Your task to perform on an android device: Empty the shopping cart on walmart. Add "asus rog" to the cart on walmart Image 0: 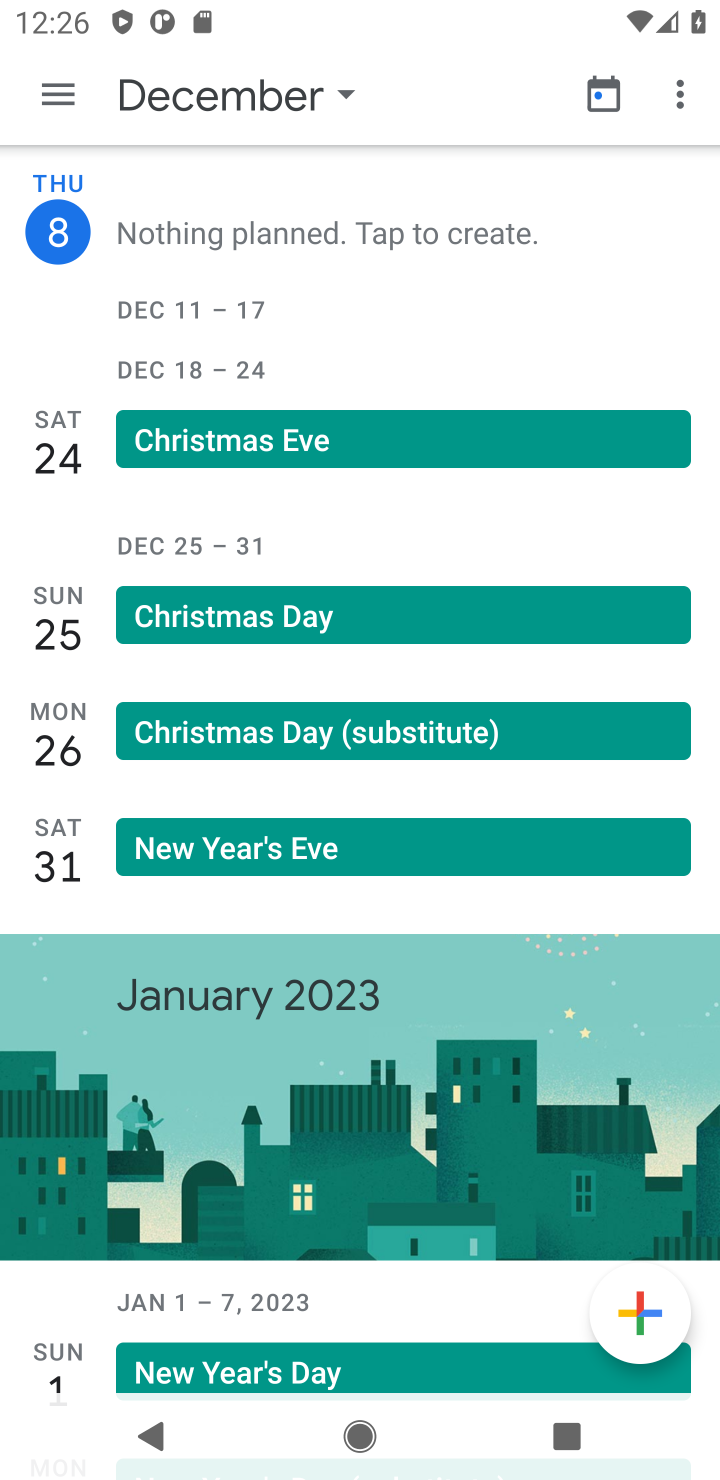
Step 0: press home button
Your task to perform on an android device: Empty the shopping cart on walmart. Add "asus rog" to the cart on walmart Image 1: 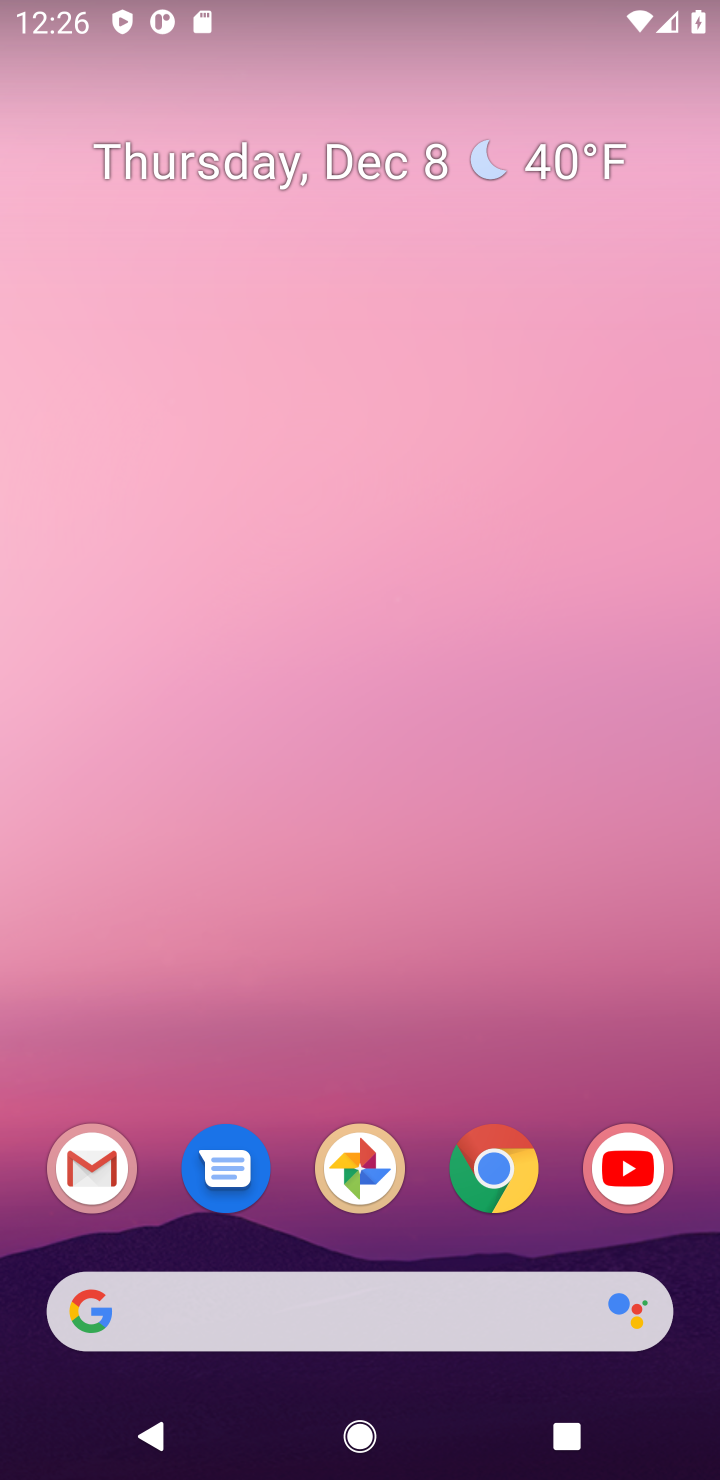
Step 1: drag from (308, 704) to (319, 247)
Your task to perform on an android device: Empty the shopping cart on walmart. Add "asus rog" to the cart on walmart Image 2: 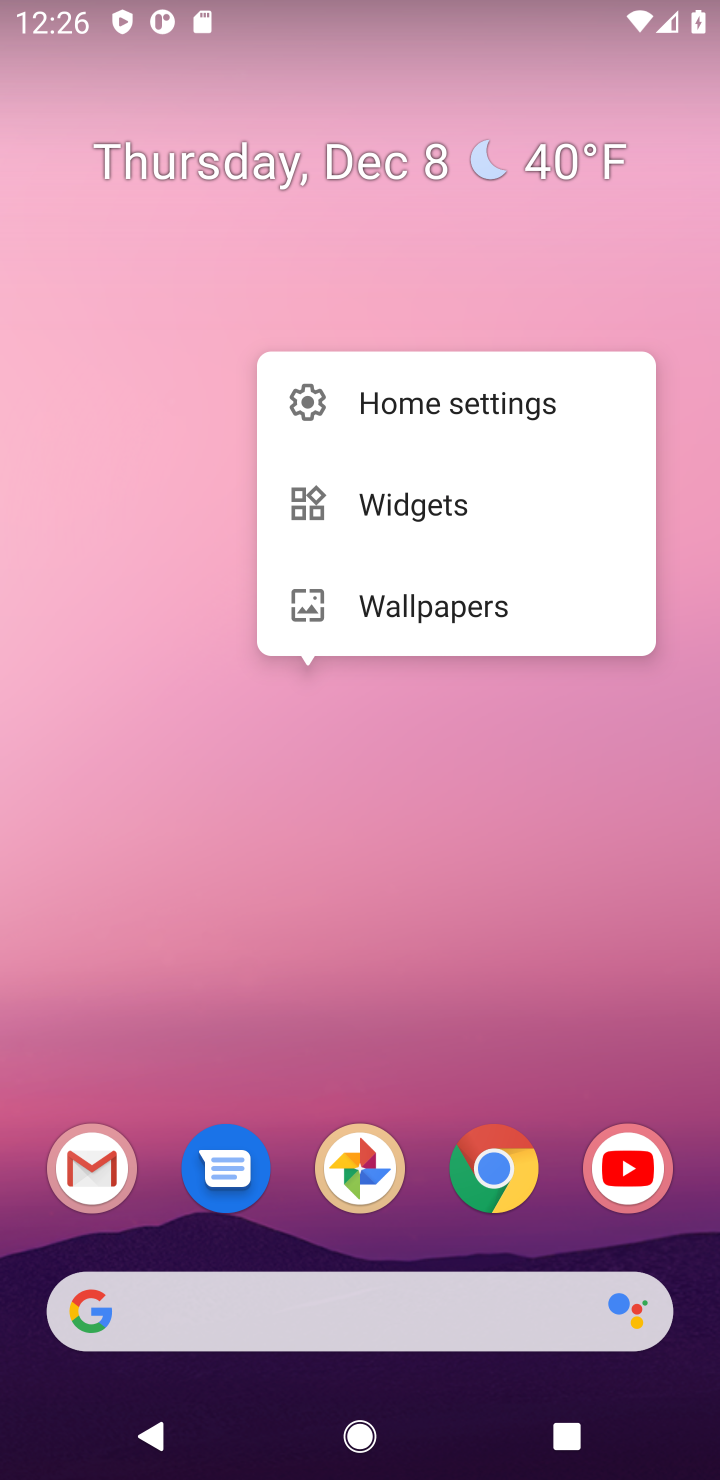
Step 2: click (63, 828)
Your task to perform on an android device: Empty the shopping cart on walmart. Add "asus rog" to the cart on walmart Image 3: 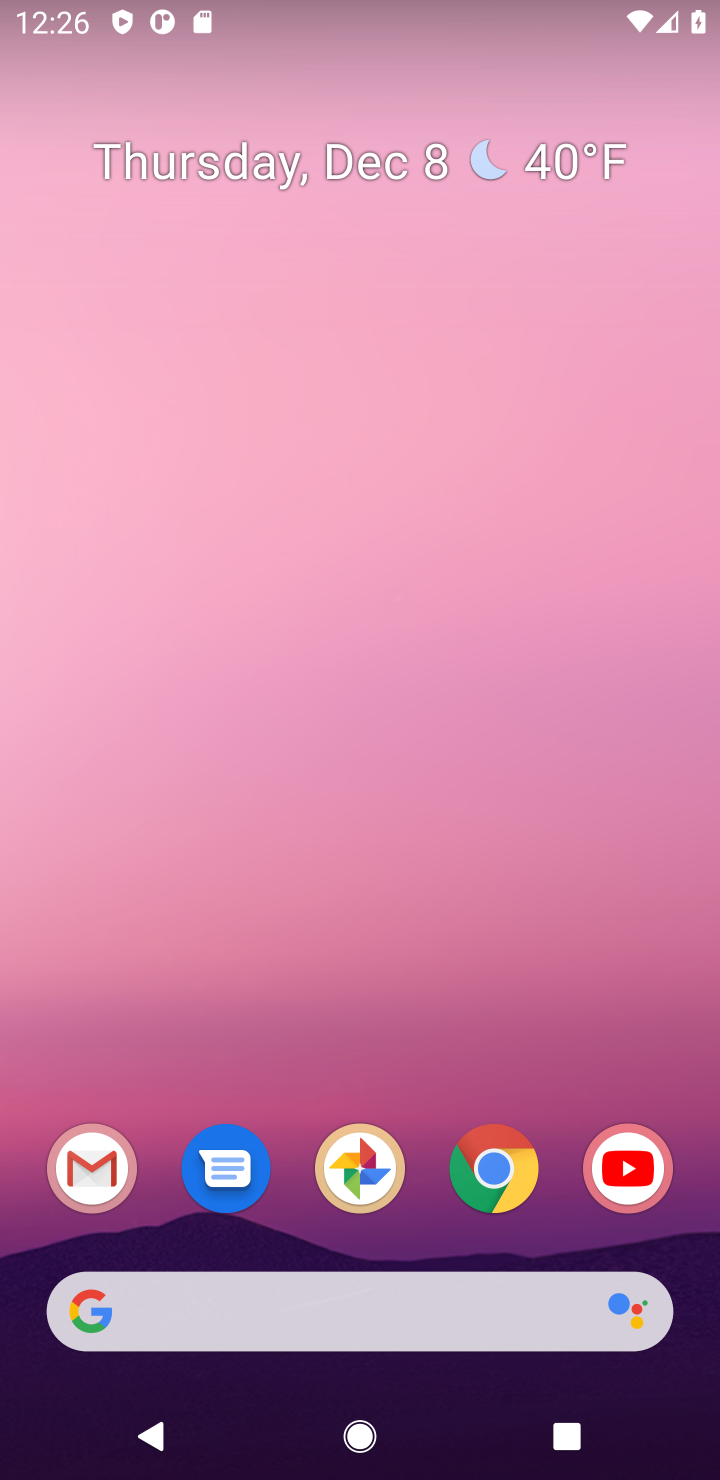
Step 3: drag from (333, 1239) to (386, 256)
Your task to perform on an android device: Empty the shopping cart on walmart. Add "asus rog" to the cart on walmart Image 4: 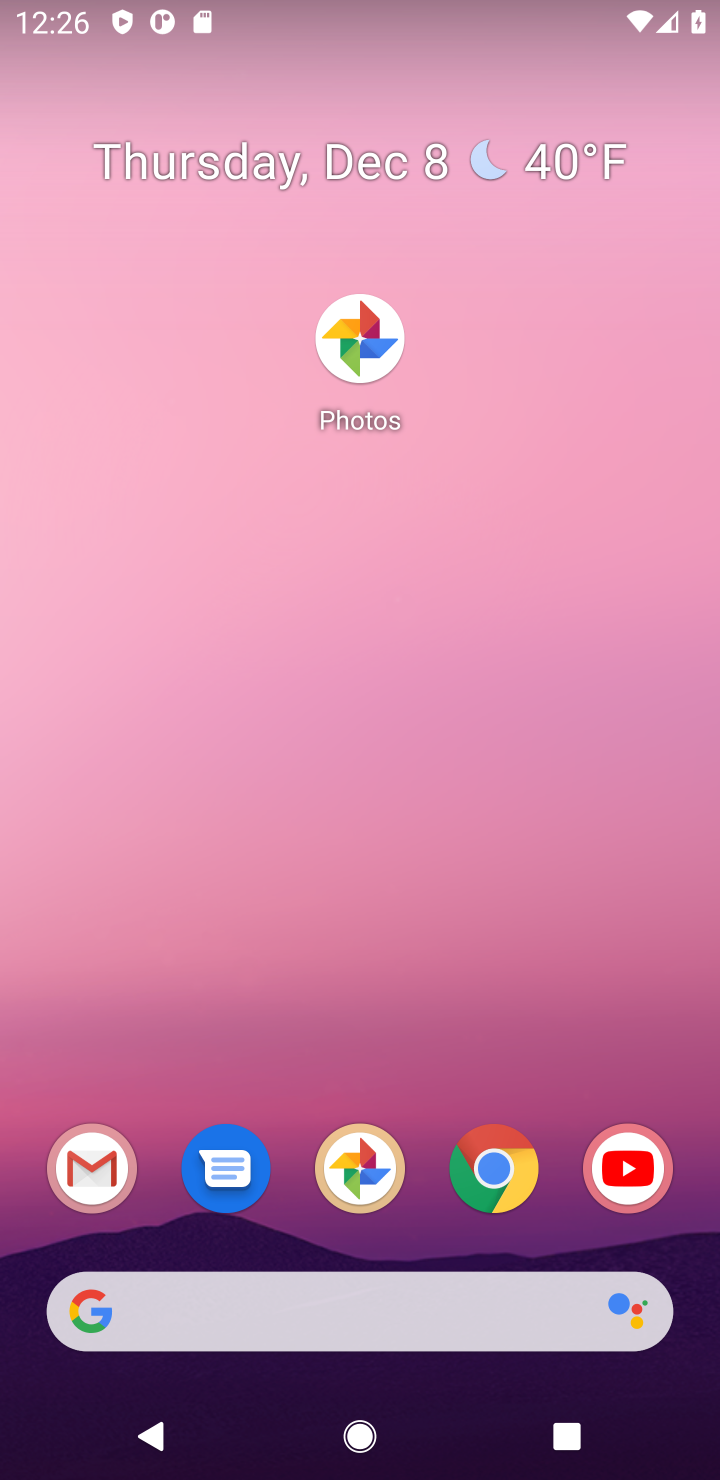
Step 4: drag from (414, 965) to (496, 297)
Your task to perform on an android device: Empty the shopping cart on walmart. Add "asus rog" to the cart on walmart Image 5: 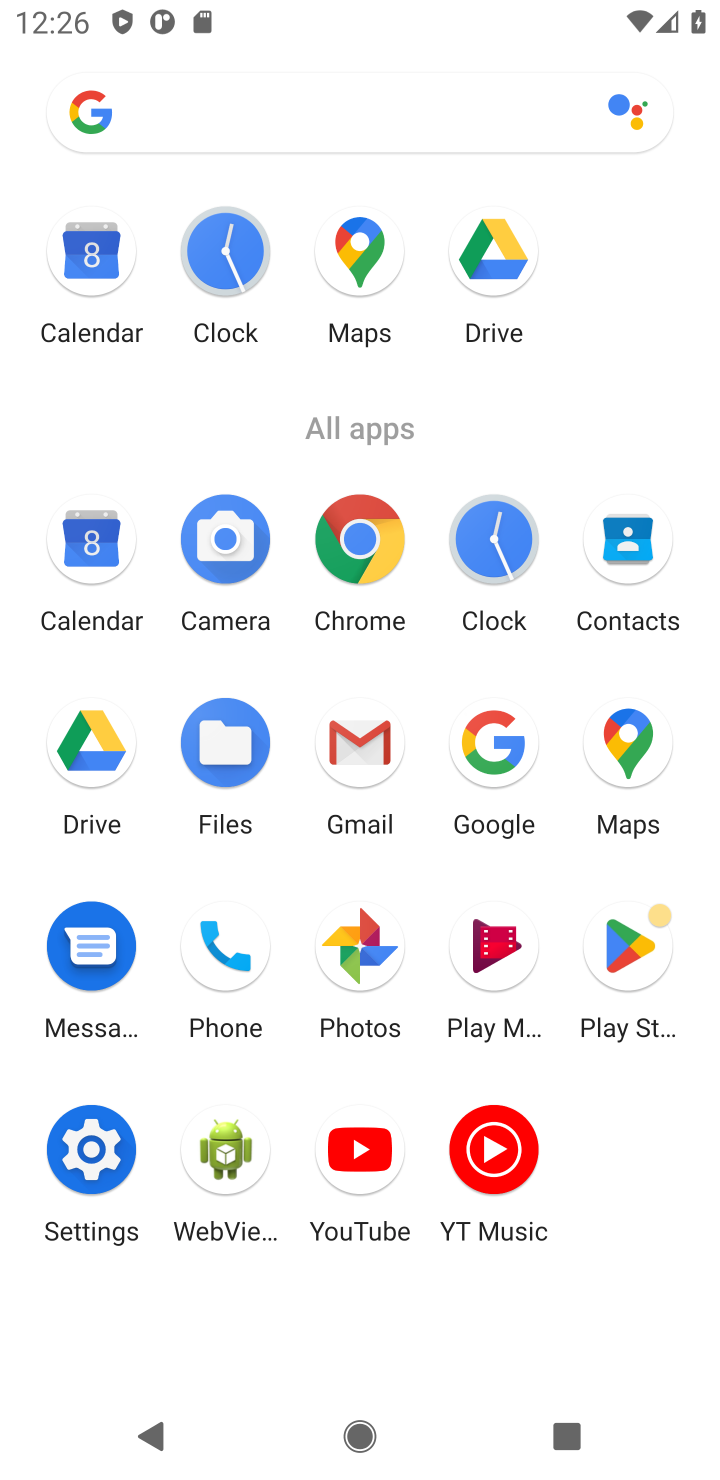
Step 5: click (489, 733)
Your task to perform on an android device: Empty the shopping cart on walmart. Add "asus rog" to the cart on walmart Image 6: 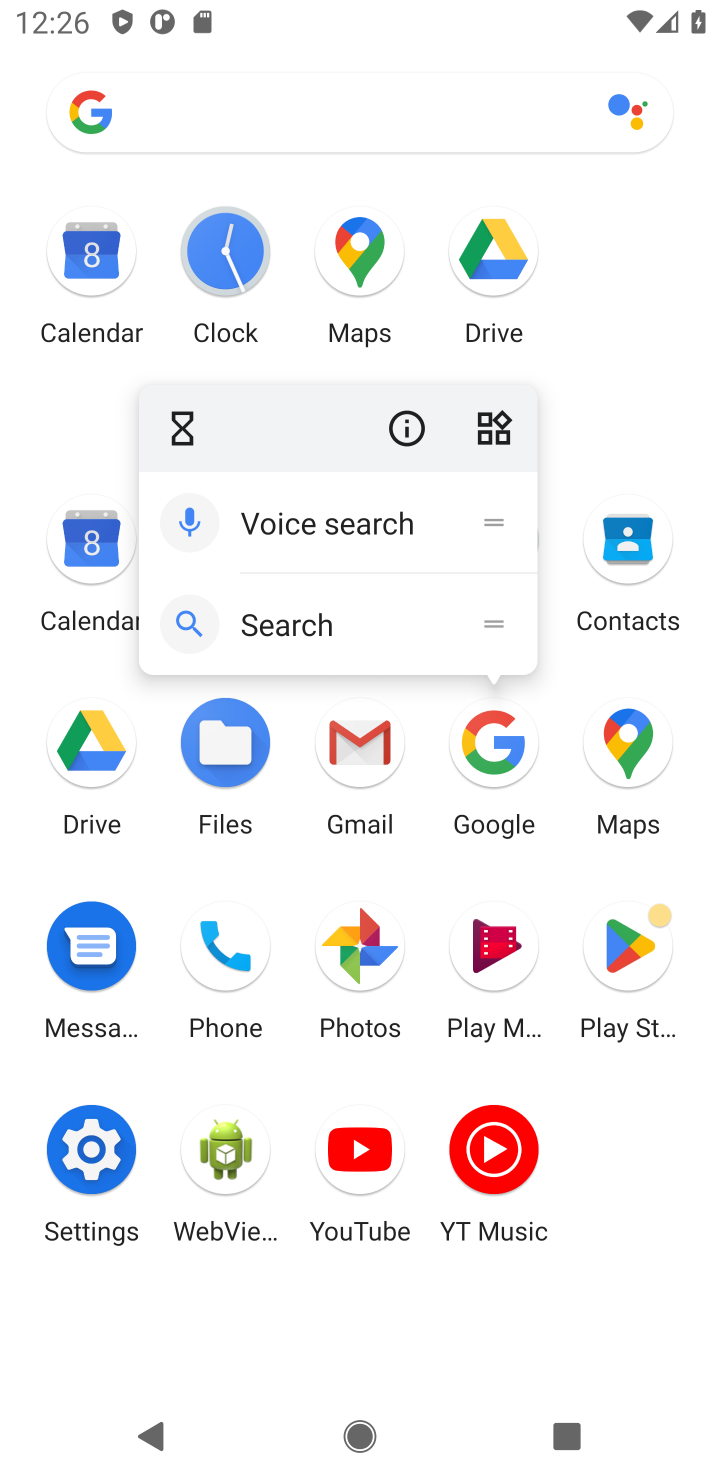
Step 6: click (482, 762)
Your task to perform on an android device: Empty the shopping cart on walmart. Add "asus rog" to the cart on walmart Image 7: 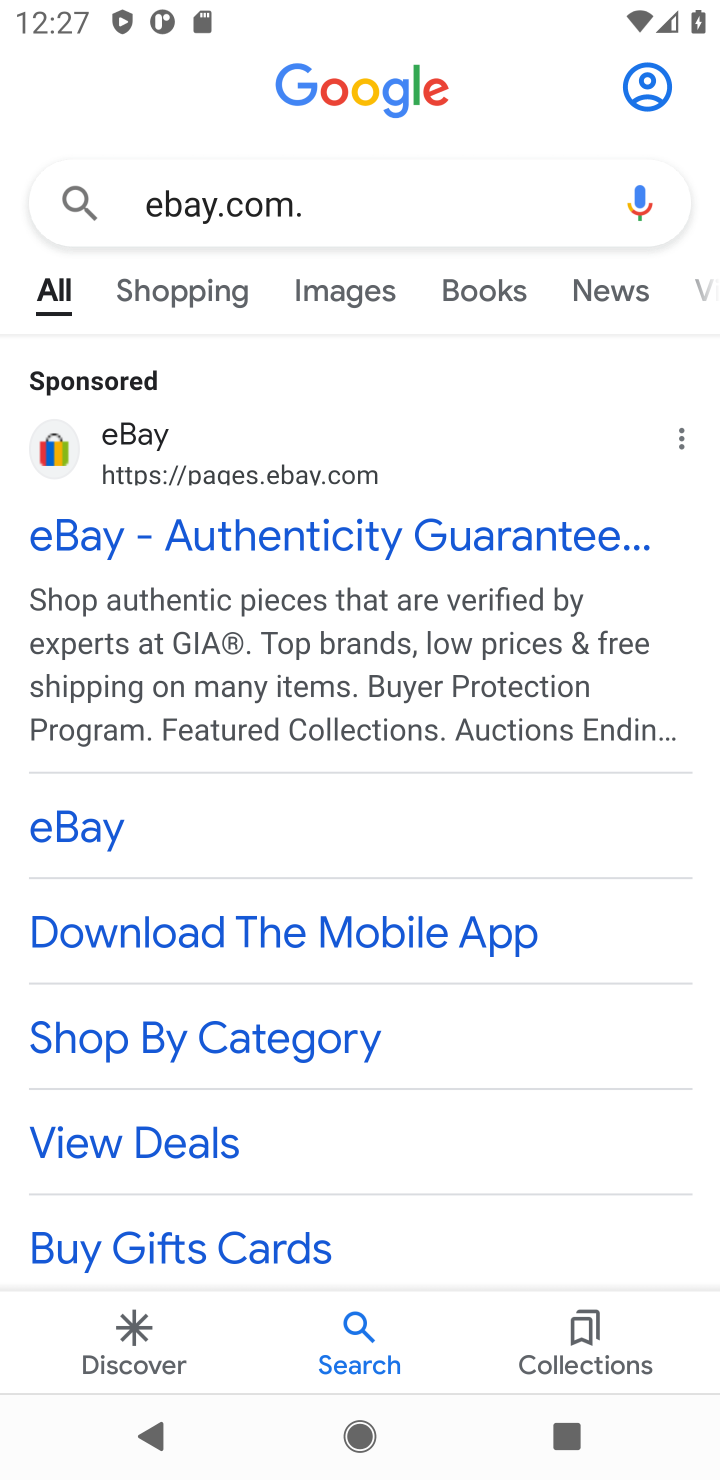
Step 7: click (243, 208)
Your task to perform on an android device: Empty the shopping cart on walmart. Add "asus rog" to the cart on walmart Image 8: 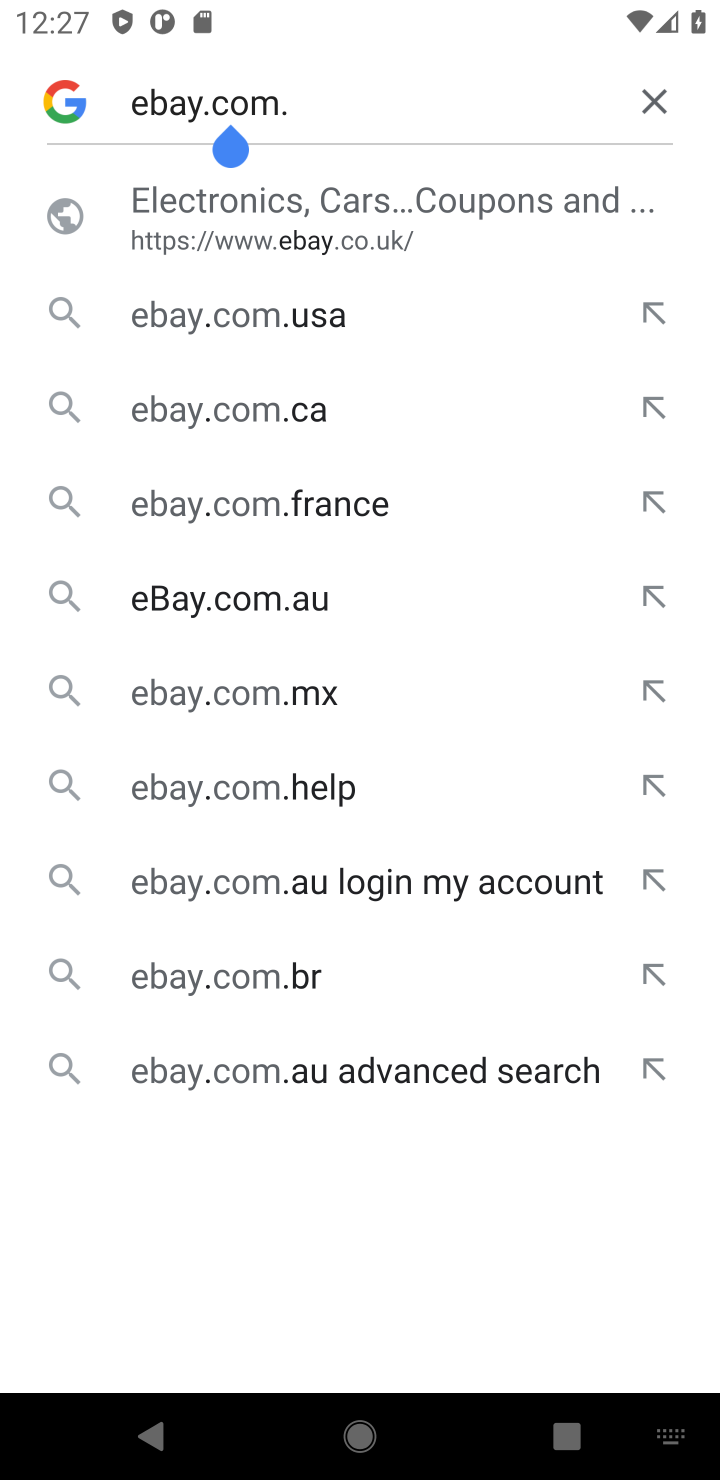
Step 8: click (655, 97)
Your task to perform on an android device: Empty the shopping cart on walmart. Add "asus rog" to the cart on walmart Image 9: 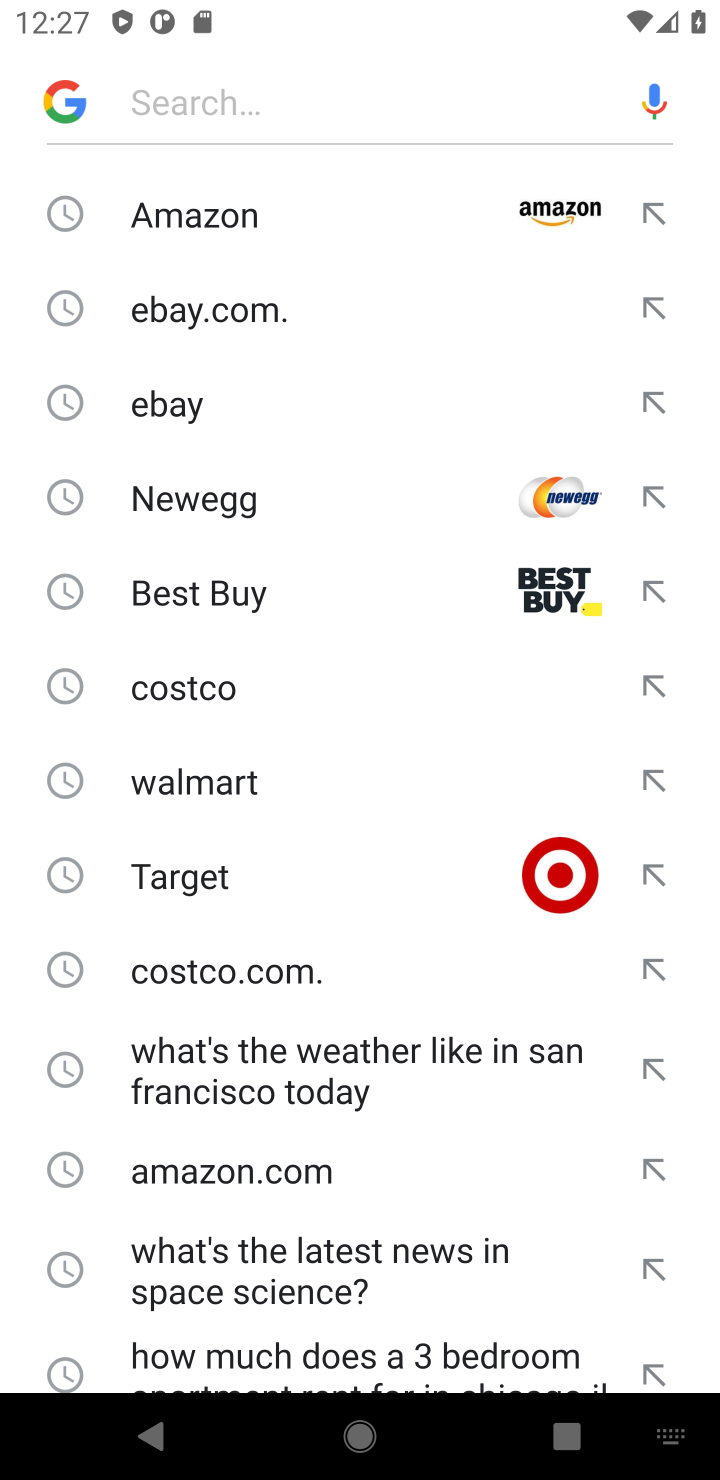
Step 9: type "walmart"
Your task to perform on an android device: Empty the shopping cart on walmart. Add "asus rog" to the cart on walmart Image 10: 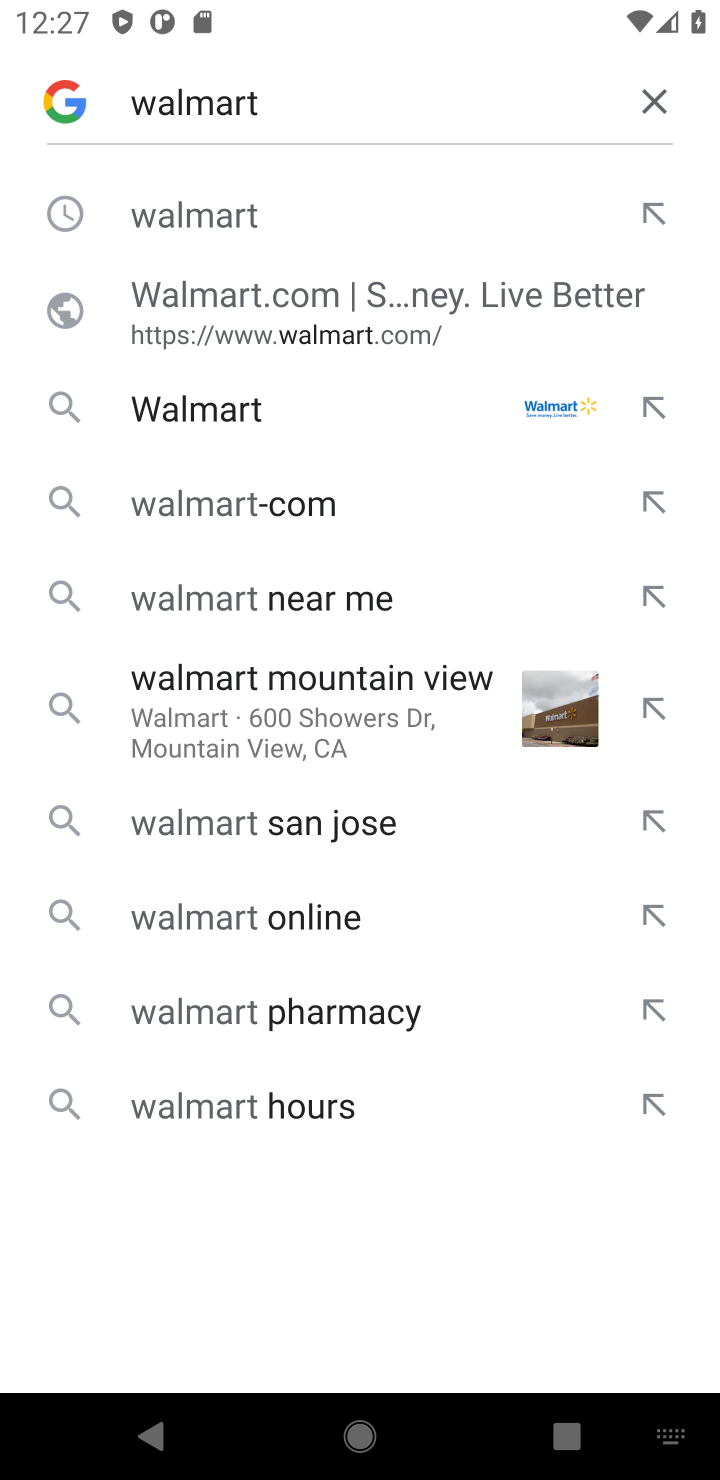
Step 10: click (213, 215)
Your task to perform on an android device: Empty the shopping cart on walmart. Add "asus rog" to the cart on walmart Image 11: 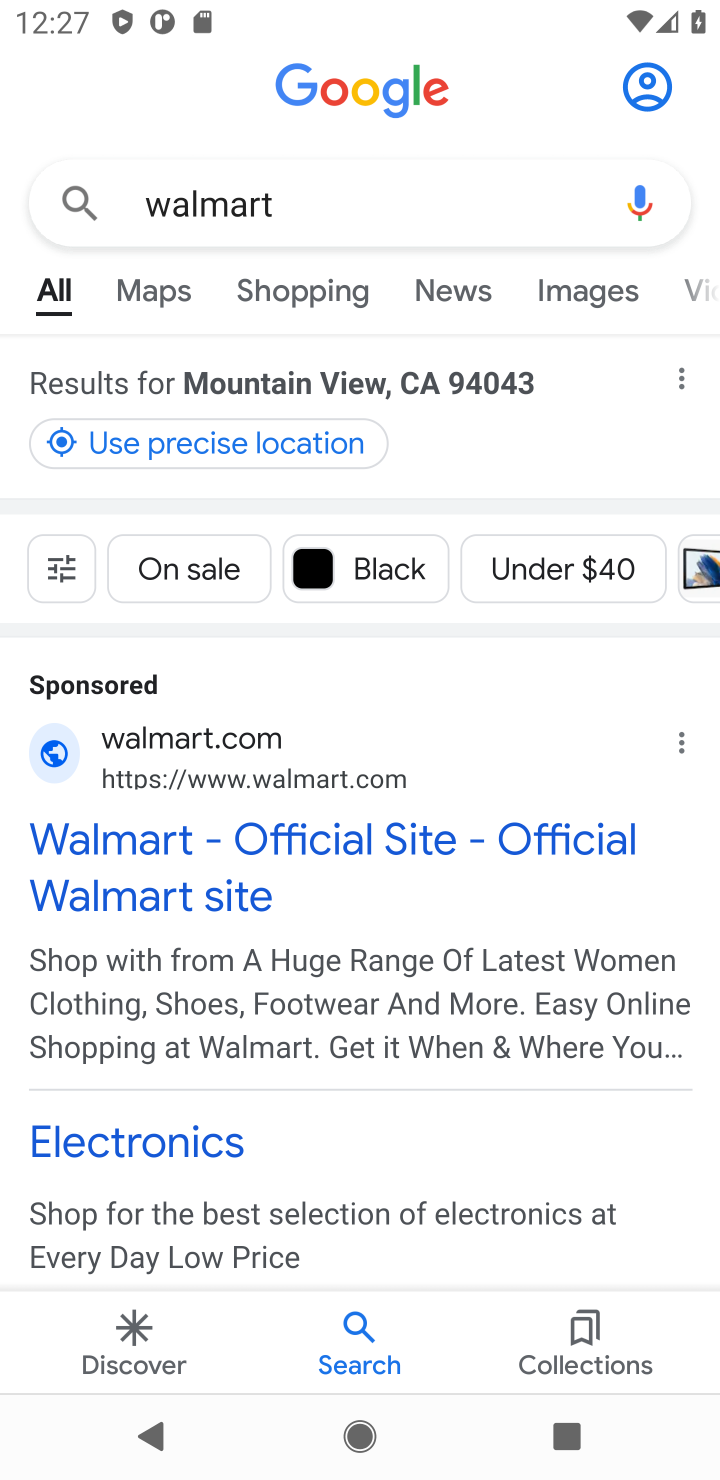
Step 11: click (309, 849)
Your task to perform on an android device: Empty the shopping cart on walmart. Add "asus rog" to the cart on walmart Image 12: 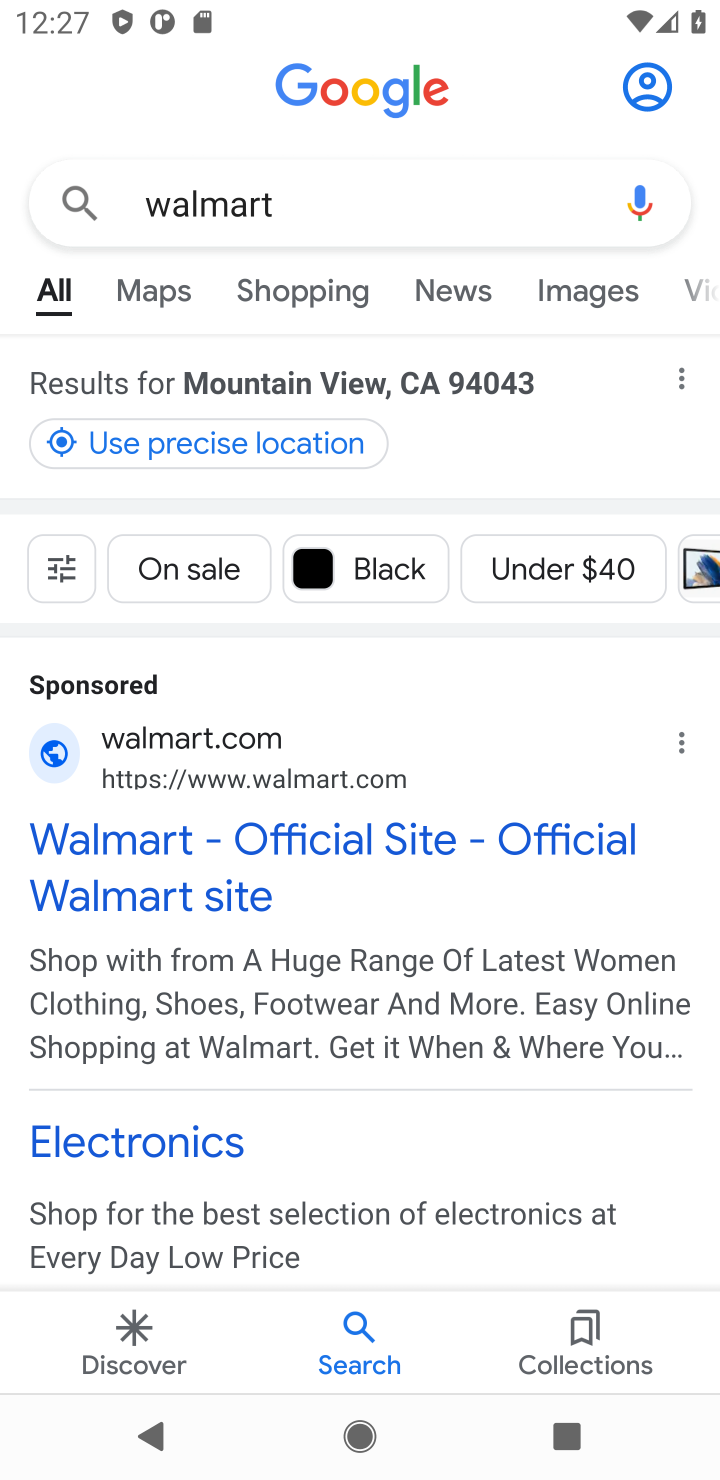
Step 12: click (182, 864)
Your task to perform on an android device: Empty the shopping cart on walmart. Add "asus rog" to the cart on walmart Image 13: 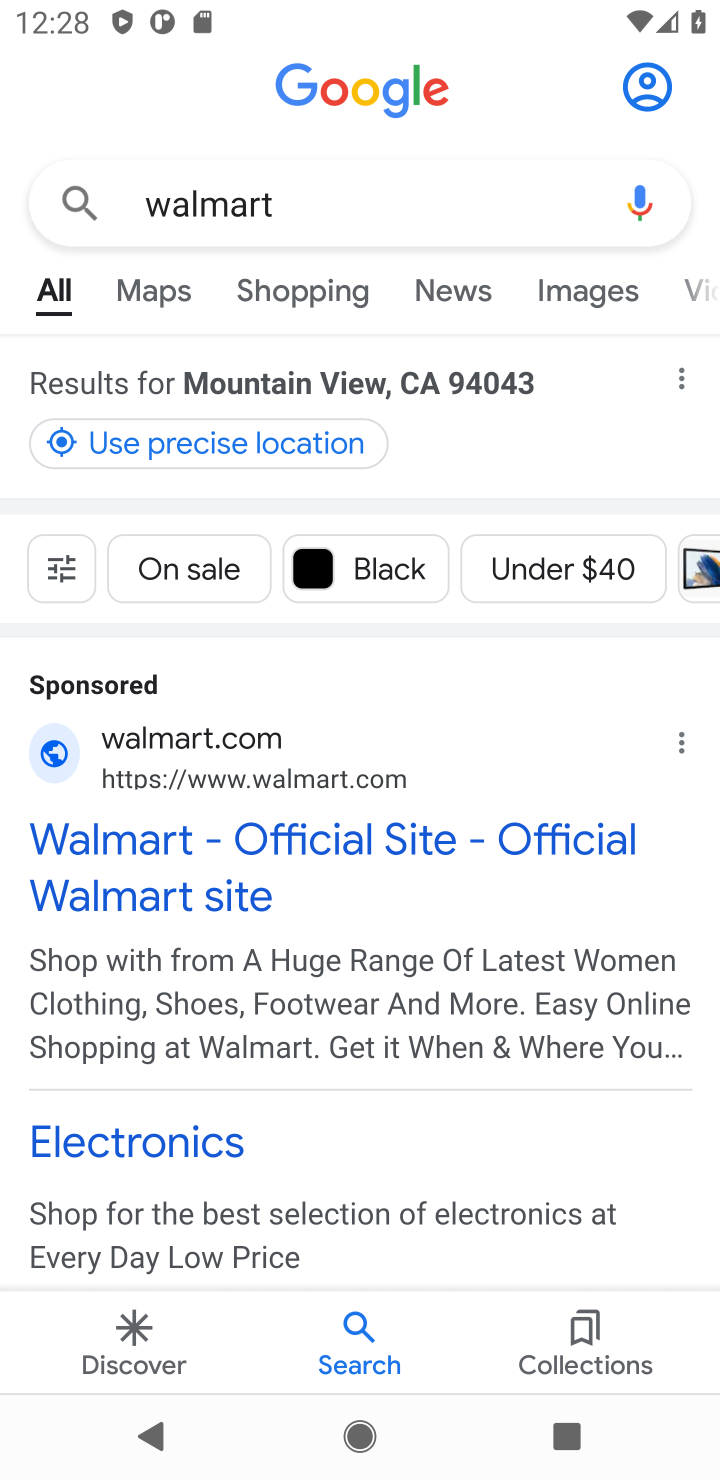
Step 13: click (207, 888)
Your task to perform on an android device: Empty the shopping cart on walmart. Add "asus rog" to the cart on walmart Image 14: 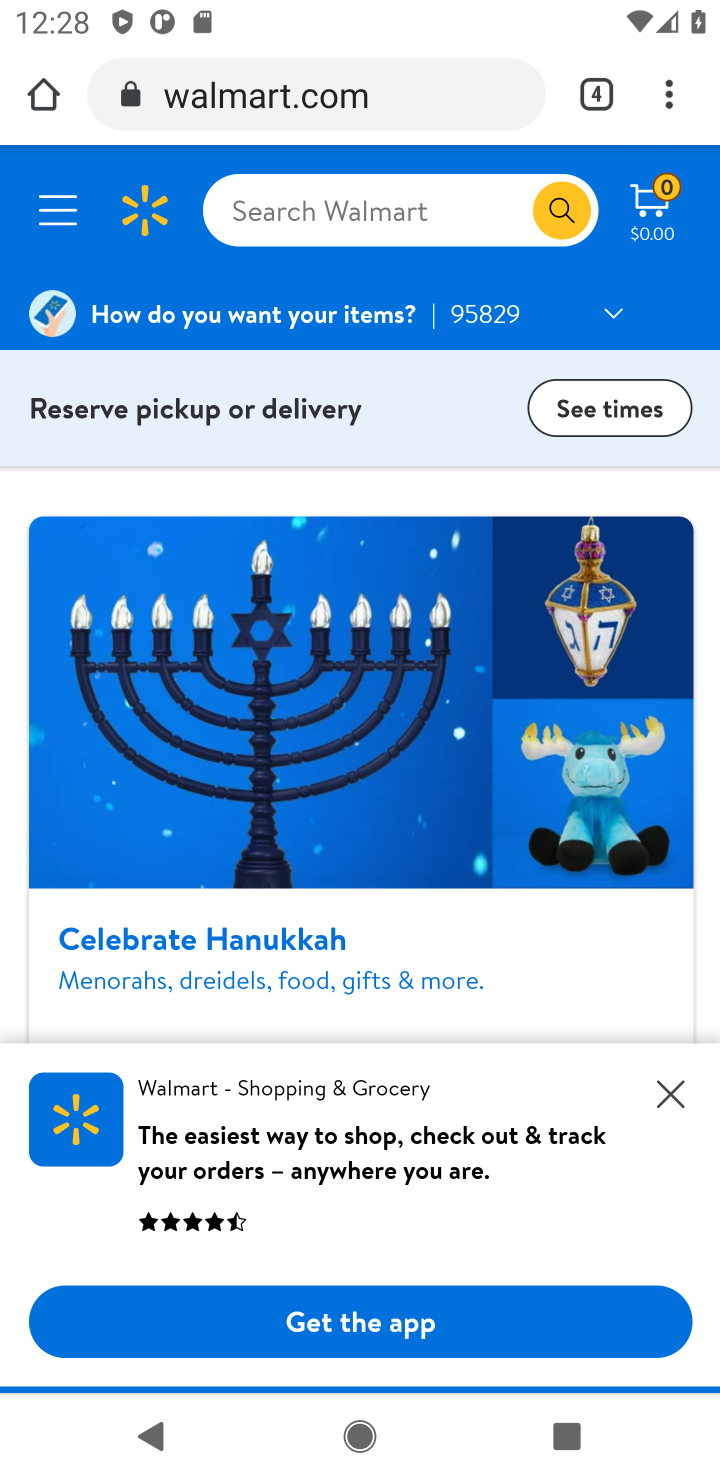
Step 14: click (262, 205)
Your task to perform on an android device: Empty the shopping cart on walmart. Add "asus rog" to the cart on walmart Image 15: 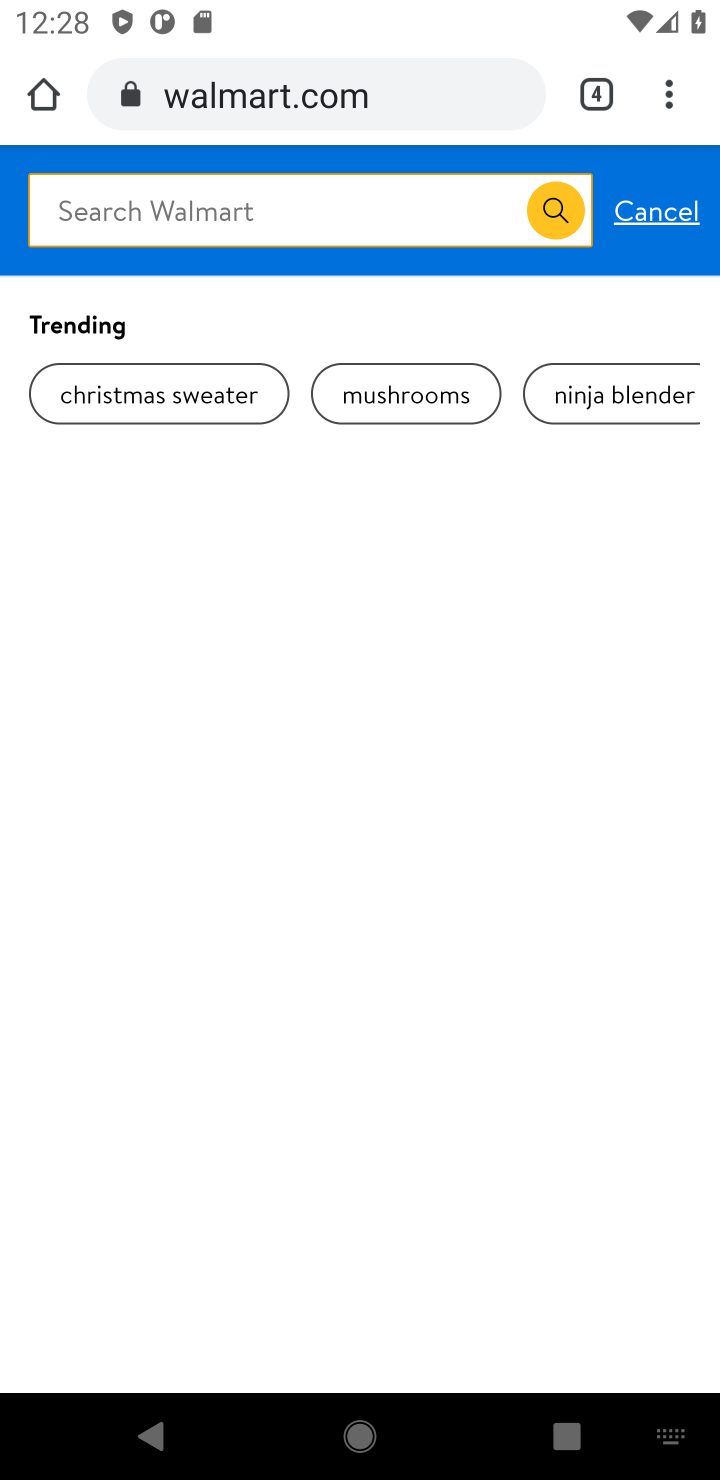
Step 15: type "asus rog"
Your task to perform on an android device: Empty the shopping cart on walmart. Add "asus rog" to the cart on walmart Image 16: 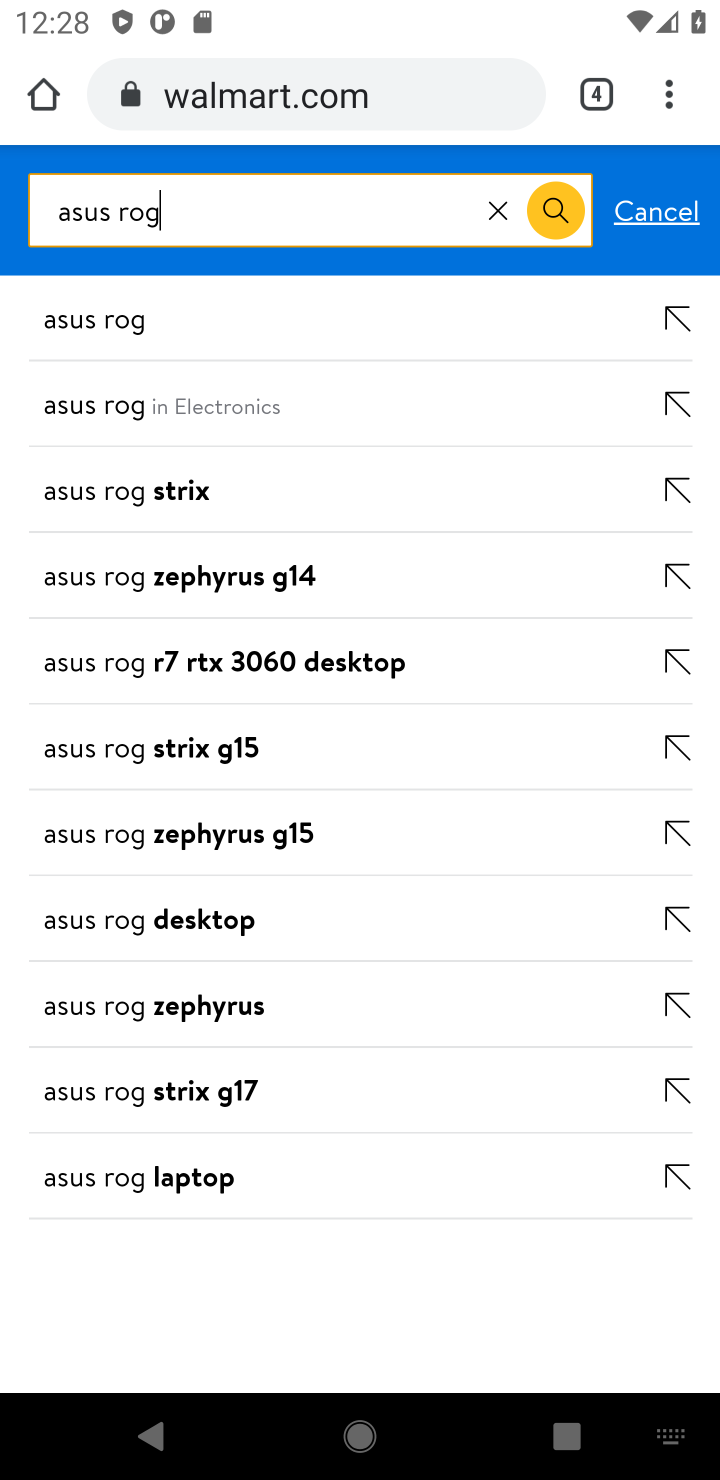
Step 16: click (131, 322)
Your task to perform on an android device: Empty the shopping cart on walmart. Add "asus rog" to the cart on walmart Image 17: 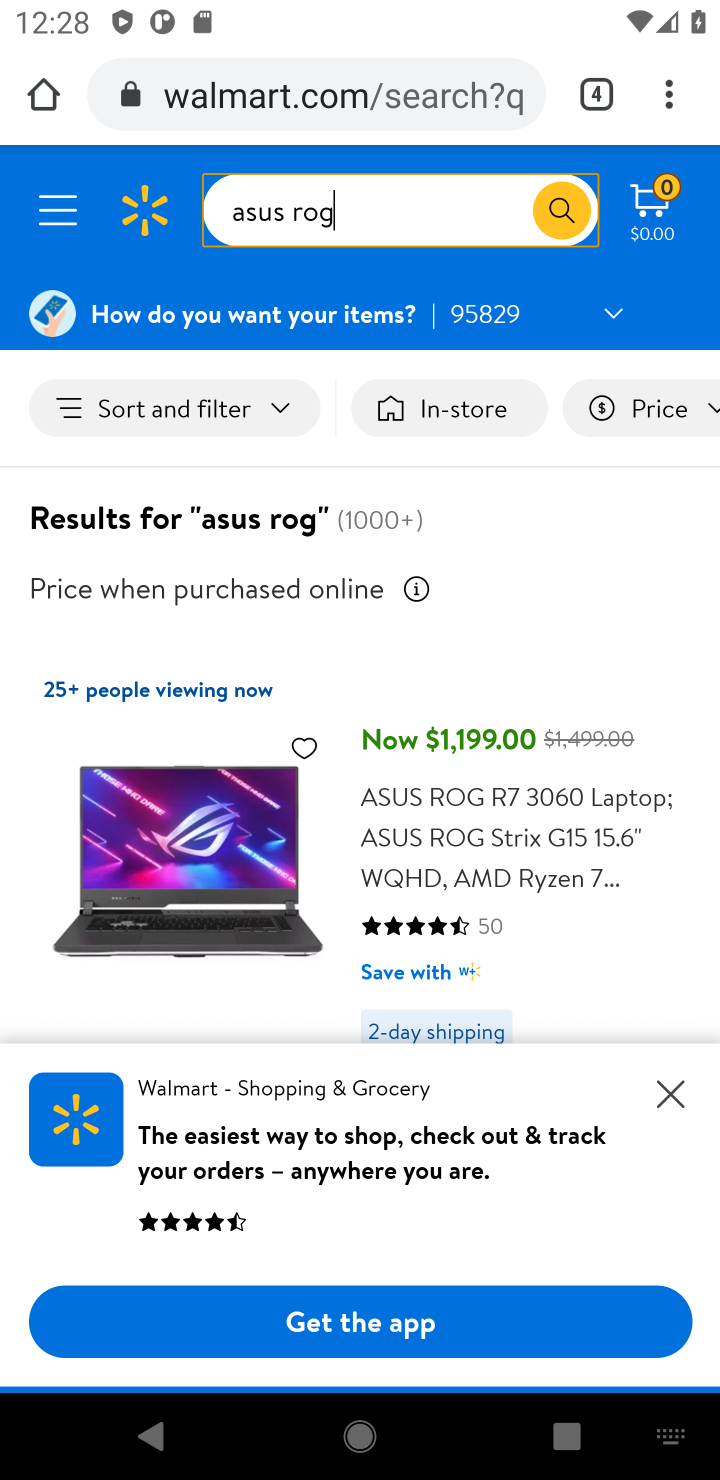
Step 17: drag from (566, 992) to (535, 547)
Your task to perform on an android device: Empty the shopping cart on walmart. Add "asus rog" to the cart on walmart Image 18: 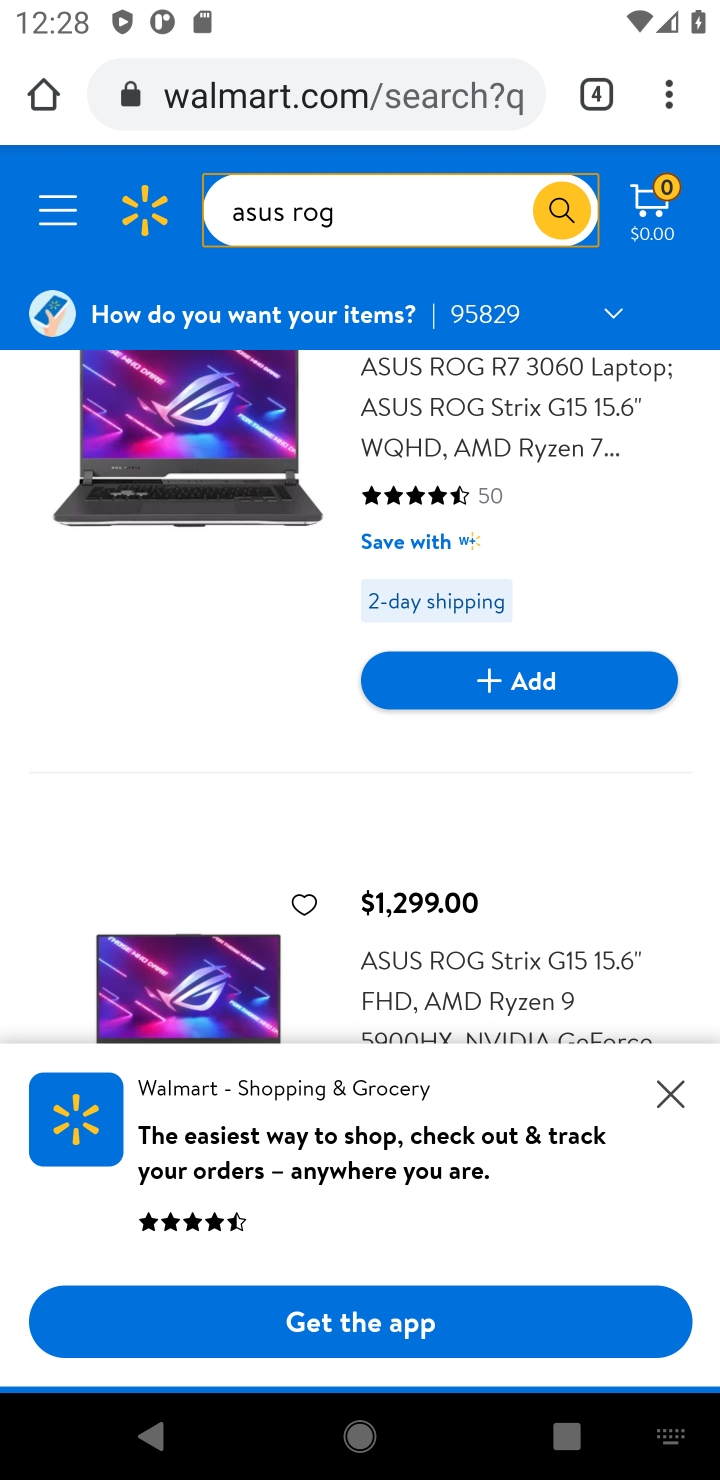
Step 18: click (531, 676)
Your task to perform on an android device: Empty the shopping cart on walmart. Add "asus rog" to the cart on walmart Image 19: 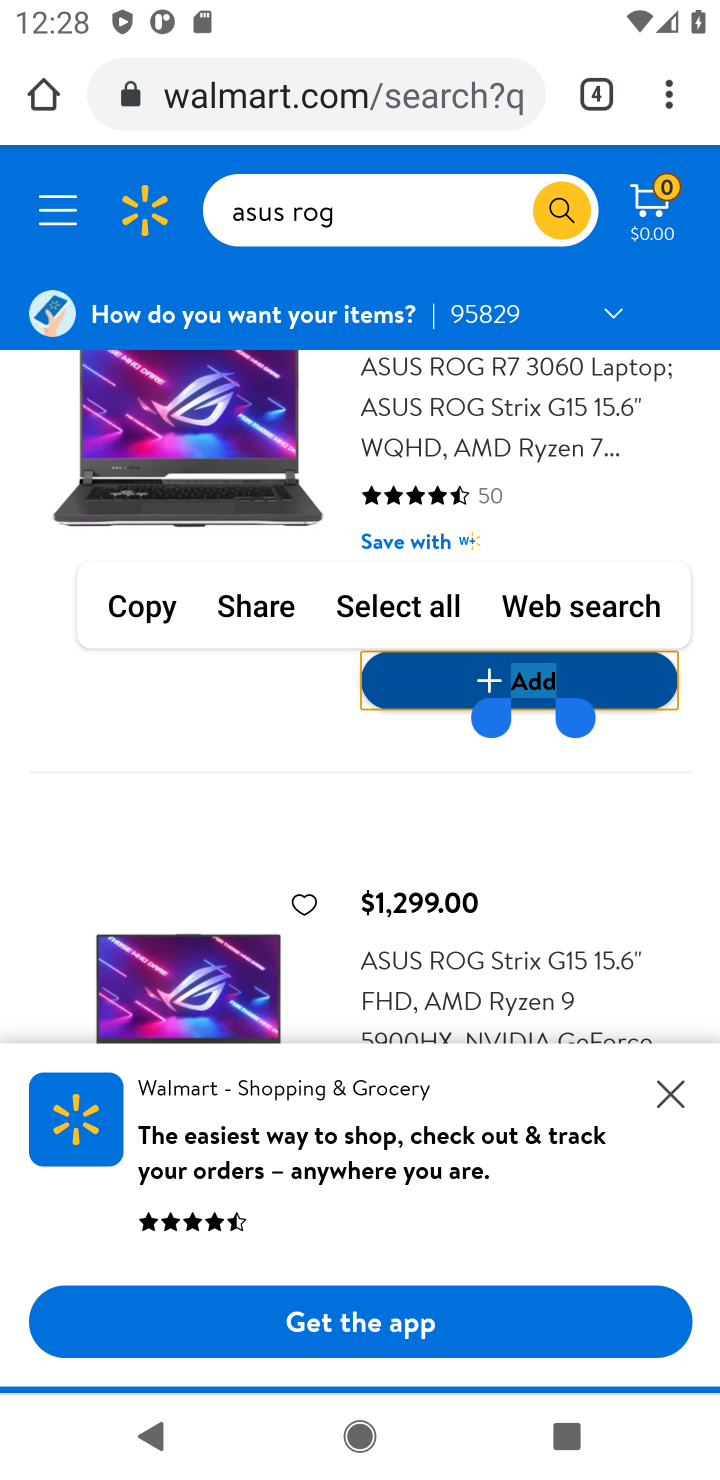
Step 19: click (267, 747)
Your task to perform on an android device: Empty the shopping cart on walmart. Add "asus rog" to the cart on walmart Image 20: 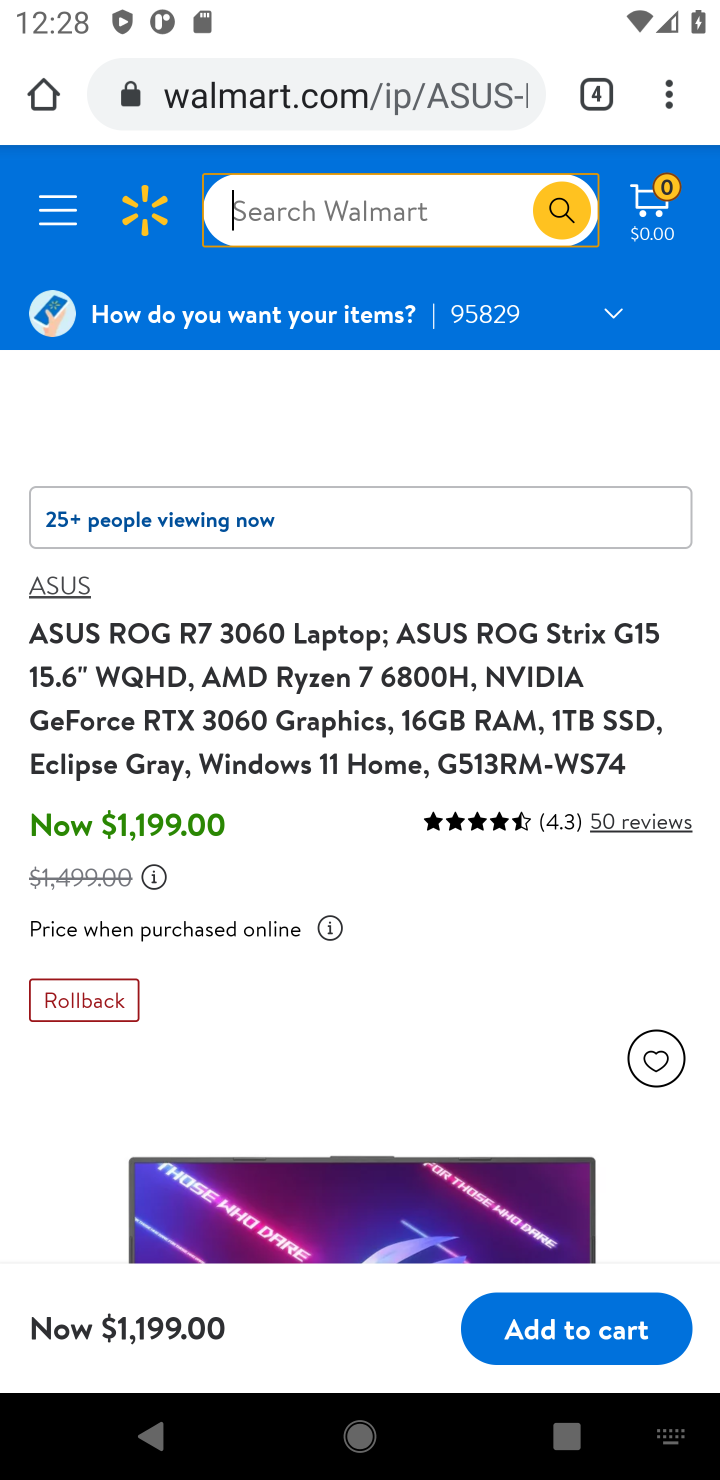
Step 20: drag from (473, 1059) to (490, 614)
Your task to perform on an android device: Empty the shopping cart on walmart. Add "asus rog" to the cart on walmart Image 21: 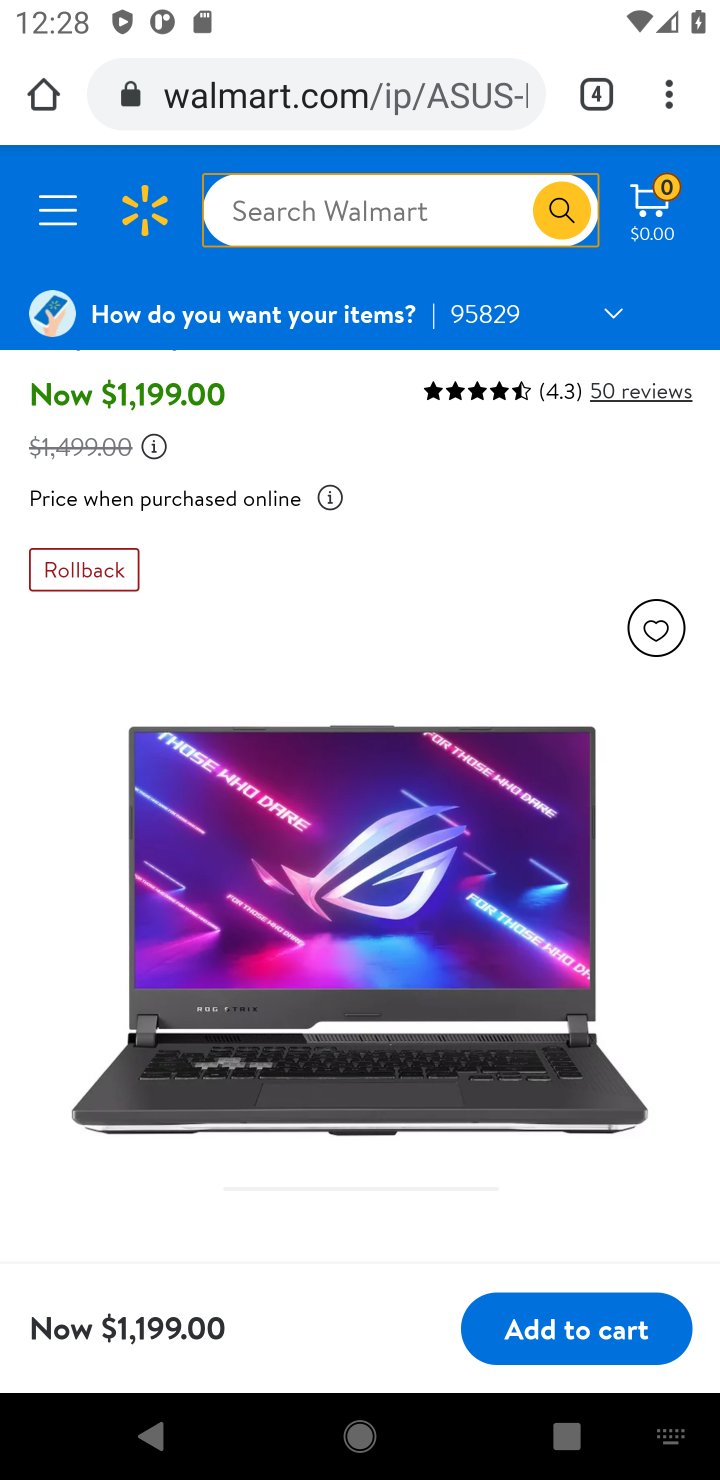
Step 21: click (583, 1344)
Your task to perform on an android device: Empty the shopping cart on walmart. Add "asus rog" to the cart on walmart Image 22: 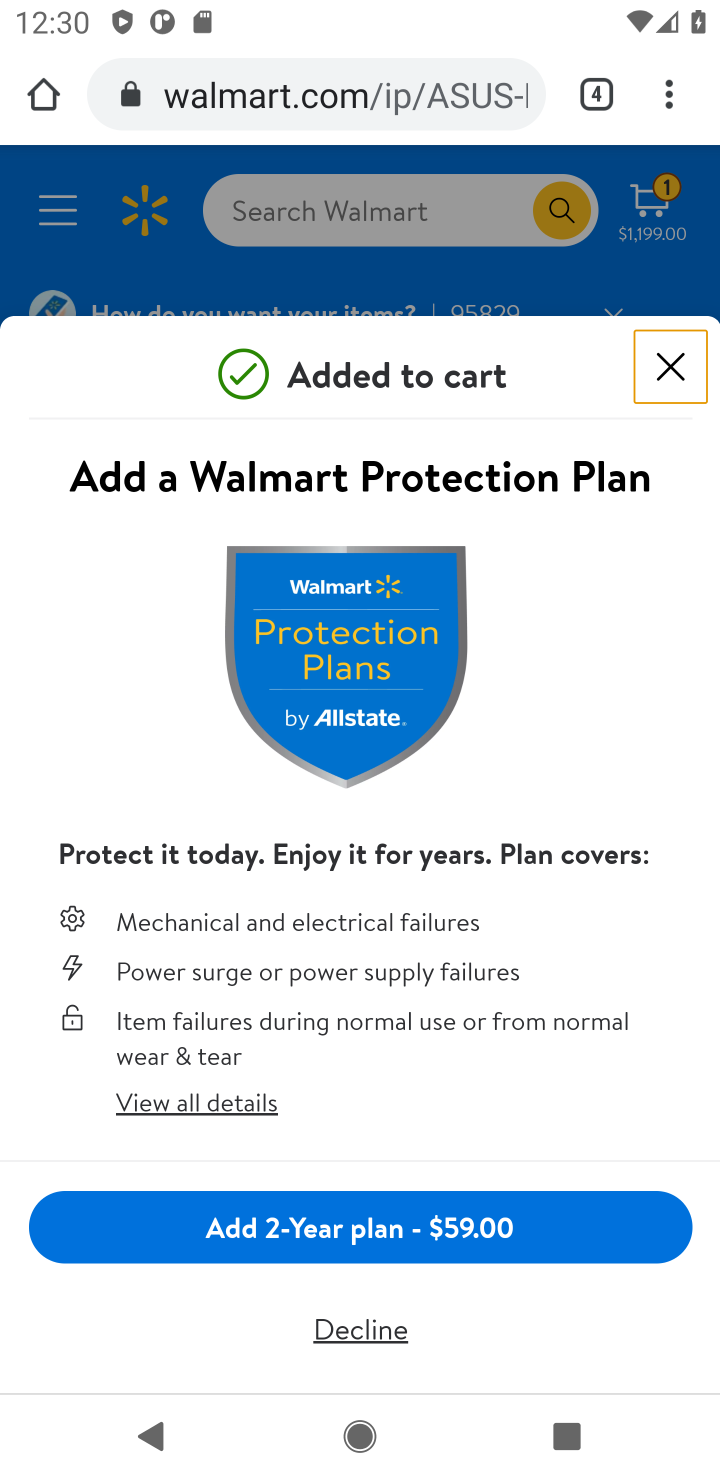
Step 22: click (656, 367)
Your task to perform on an android device: Empty the shopping cart on walmart. Add "asus rog" to the cart on walmart Image 23: 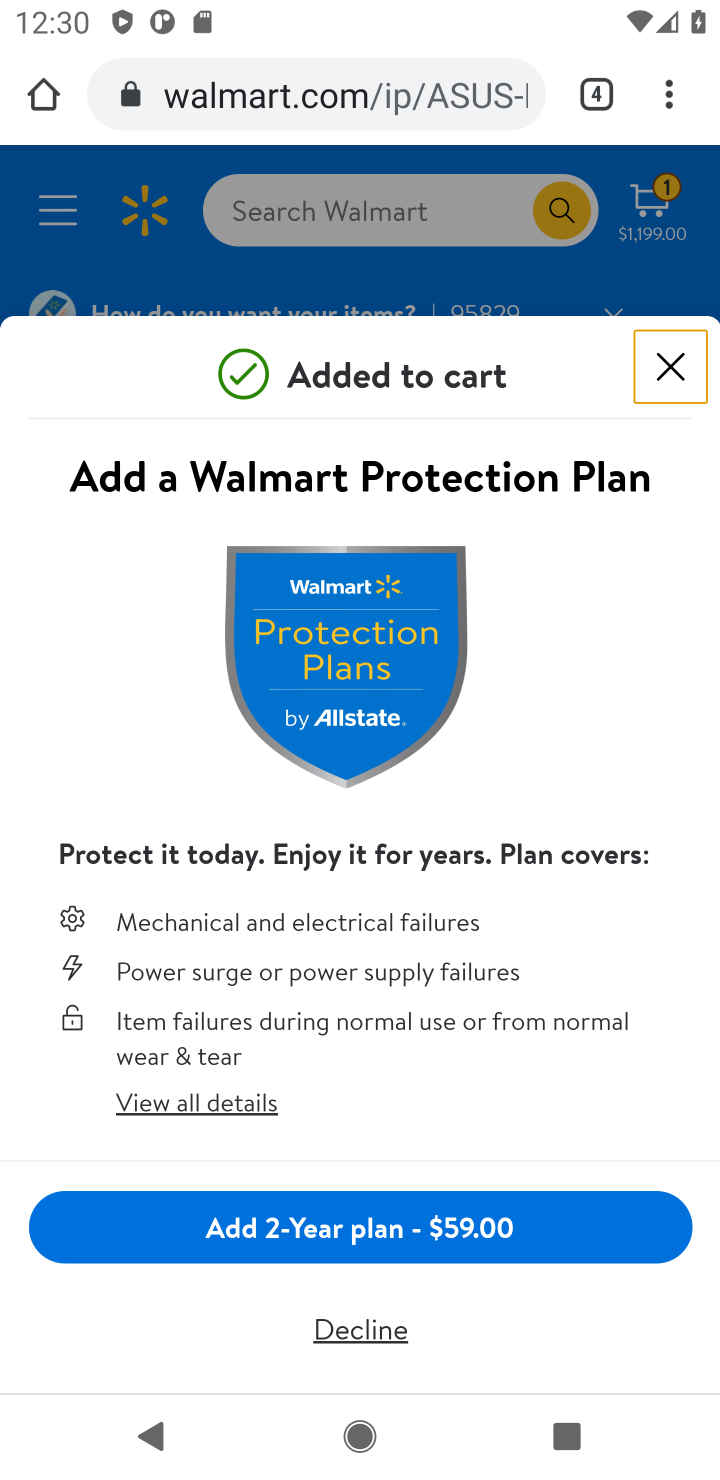
Step 23: task complete